Your task to perform on an android device: turn off sleep mode Image 0: 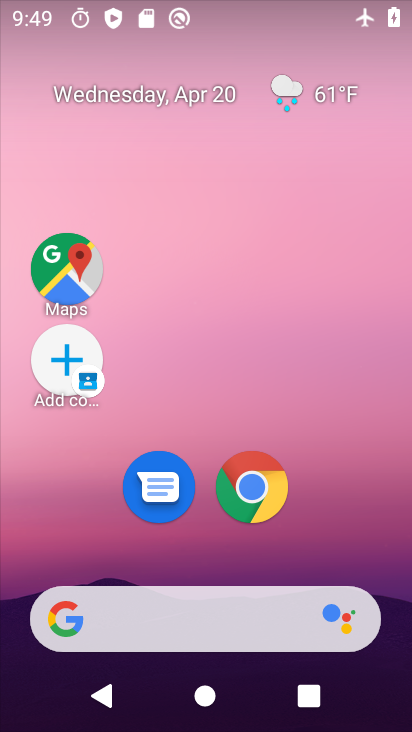
Step 0: drag from (352, 524) to (322, 101)
Your task to perform on an android device: turn off sleep mode Image 1: 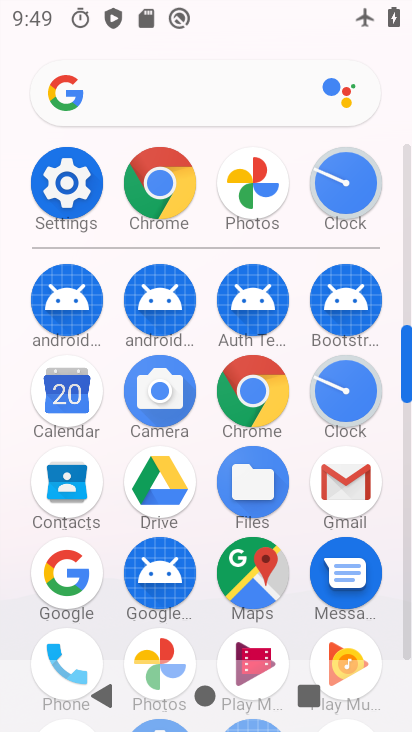
Step 1: click (74, 175)
Your task to perform on an android device: turn off sleep mode Image 2: 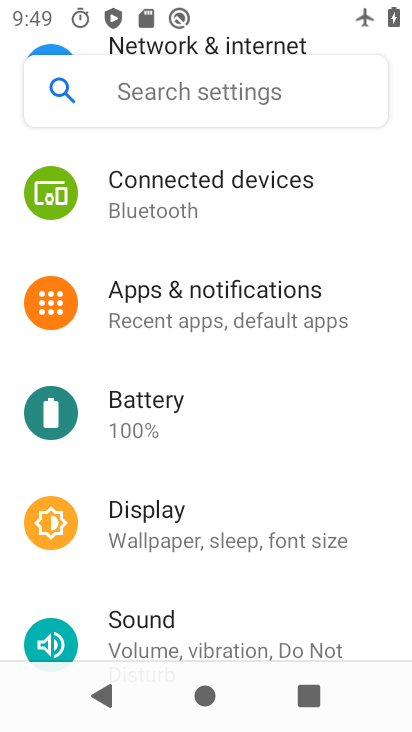
Step 2: click (231, 526)
Your task to perform on an android device: turn off sleep mode Image 3: 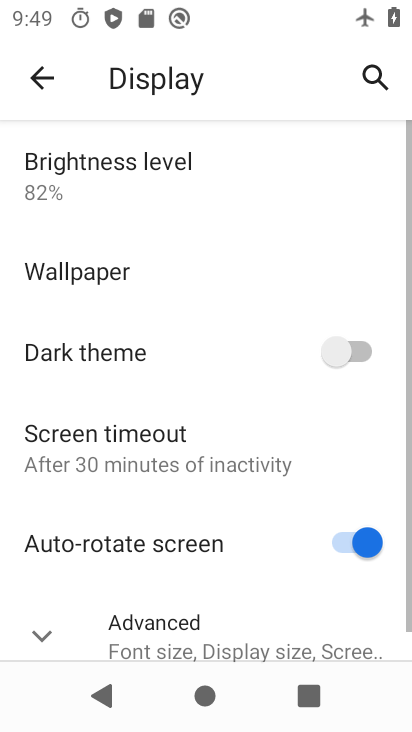
Step 3: click (223, 630)
Your task to perform on an android device: turn off sleep mode Image 4: 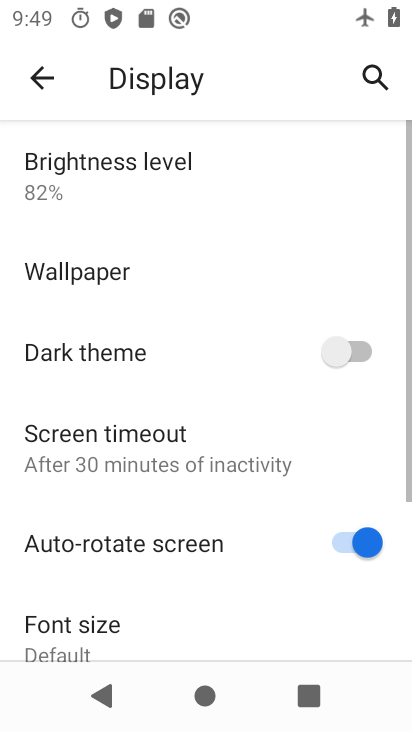
Step 4: drag from (210, 615) to (199, 390)
Your task to perform on an android device: turn off sleep mode Image 5: 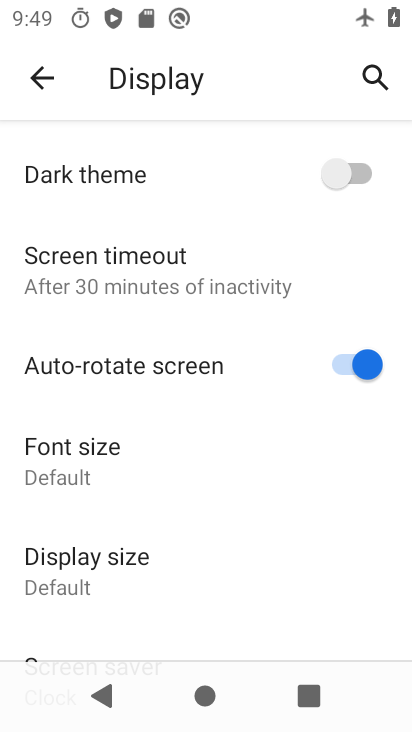
Step 5: drag from (175, 541) to (147, 354)
Your task to perform on an android device: turn off sleep mode Image 6: 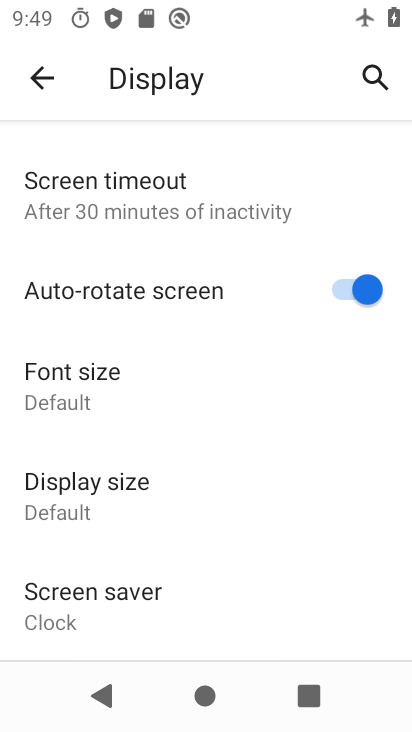
Step 6: drag from (176, 546) to (121, 334)
Your task to perform on an android device: turn off sleep mode Image 7: 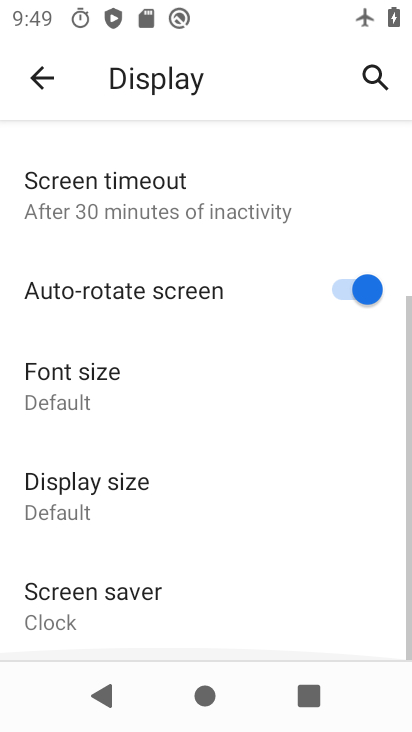
Step 7: click (38, 91)
Your task to perform on an android device: turn off sleep mode Image 8: 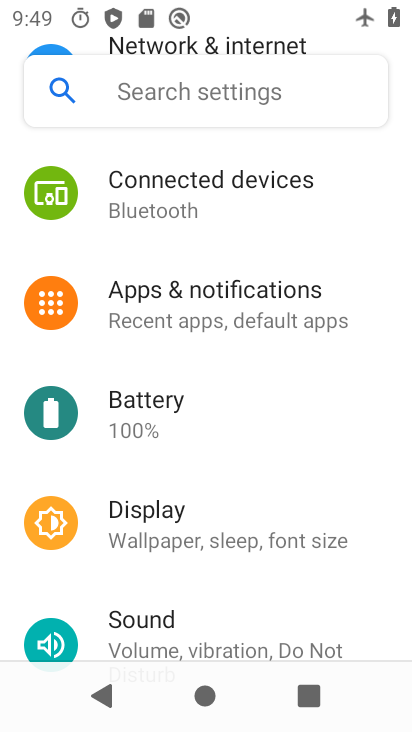
Step 8: task complete